Your task to perform on an android device: Open Chrome and go to settings Image 0: 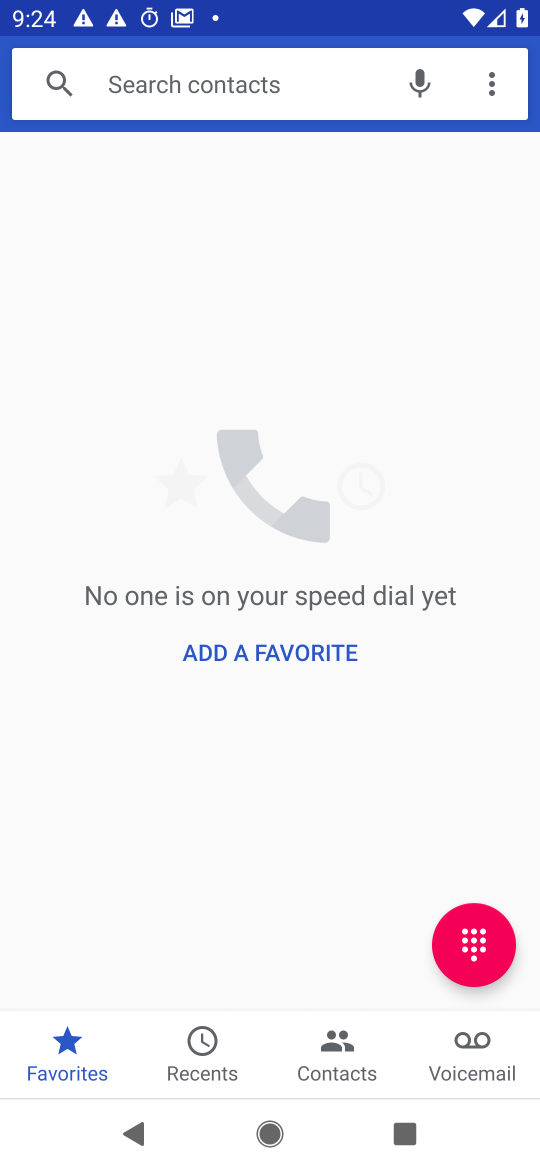
Step 0: press back button
Your task to perform on an android device: Open Chrome and go to settings Image 1: 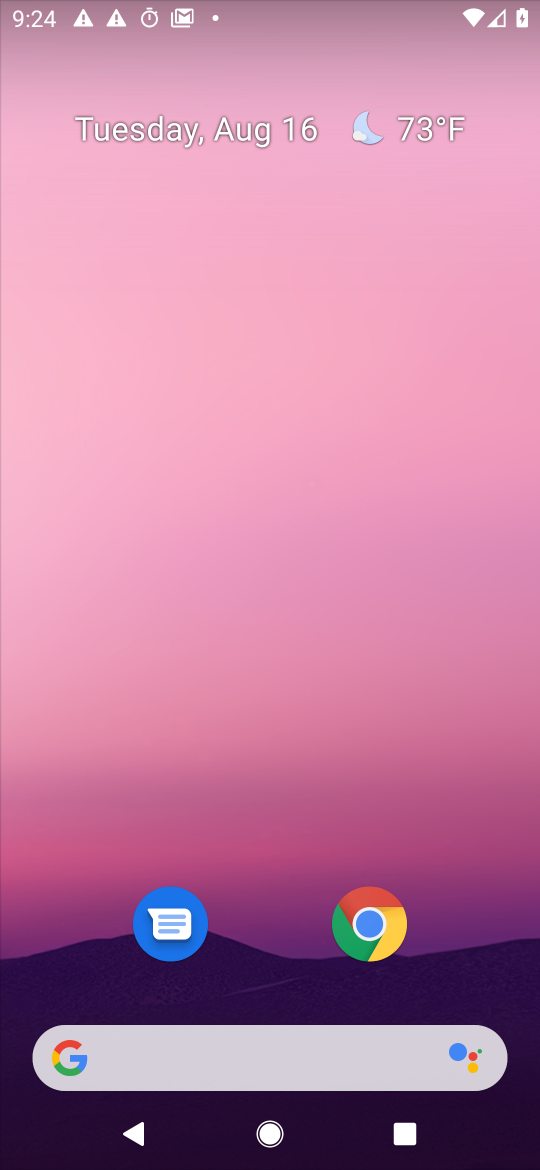
Step 1: click (345, 918)
Your task to perform on an android device: Open Chrome and go to settings Image 2: 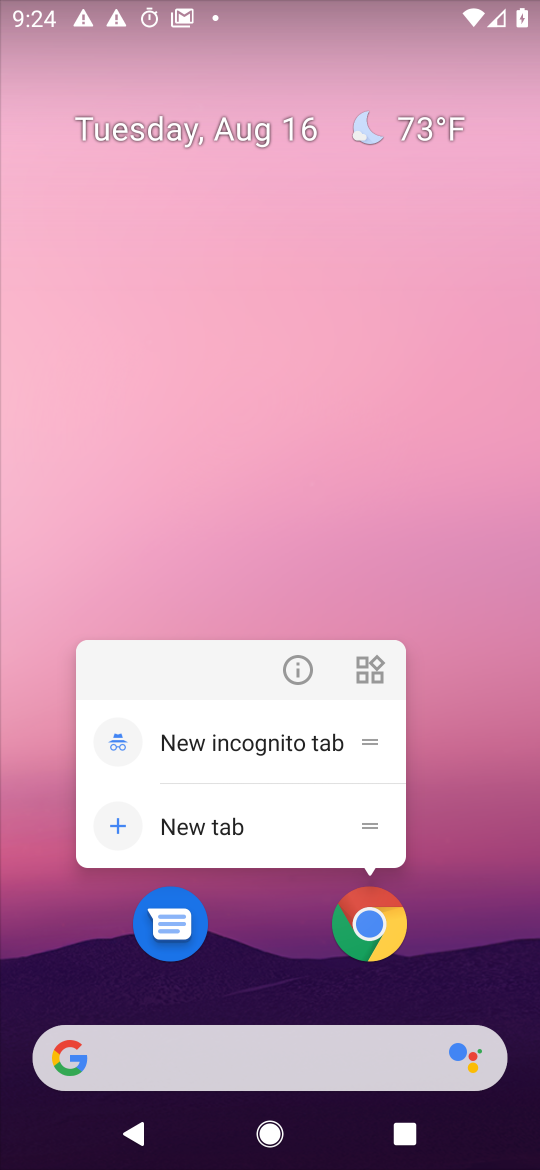
Step 2: click (374, 923)
Your task to perform on an android device: Open Chrome and go to settings Image 3: 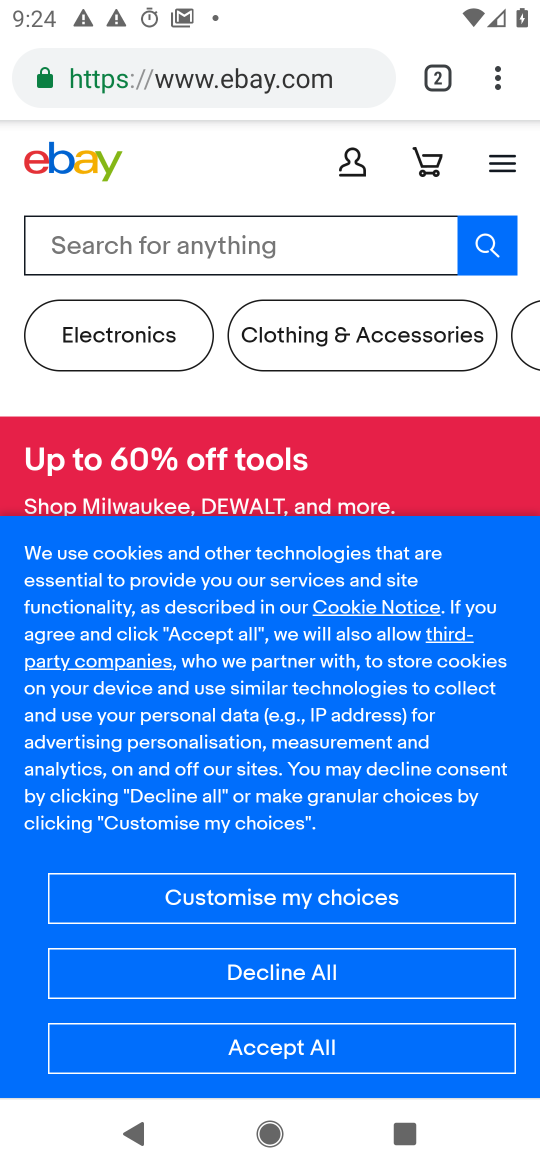
Step 3: task complete